Your task to perform on an android device: add a contact in the contacts app Image 0: 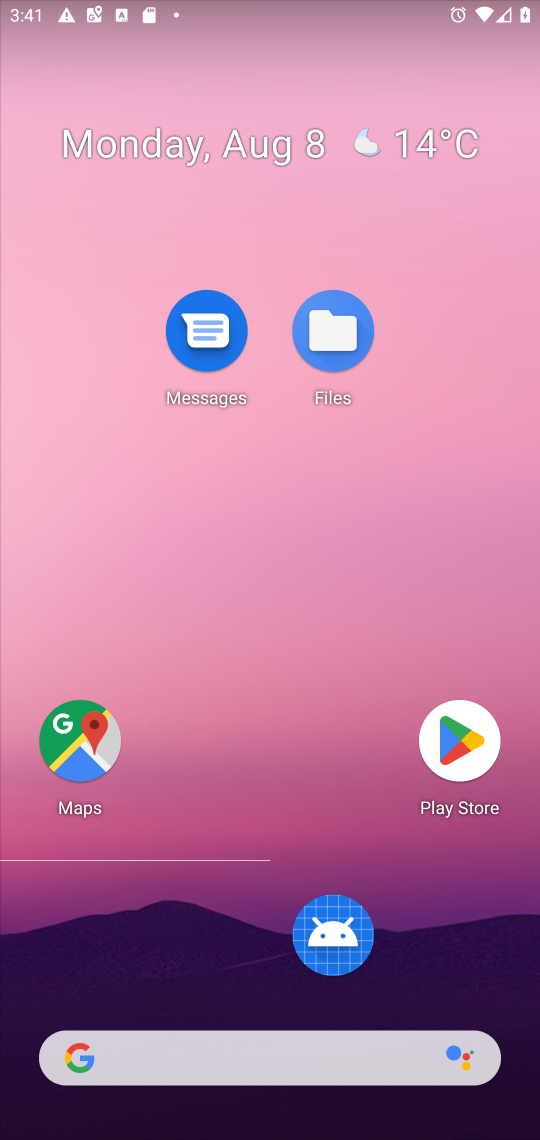
Step 0: drag from (236, 999) to (227, 68)
Your task to perform on an android device: add a contact in the contacts app Image 1: 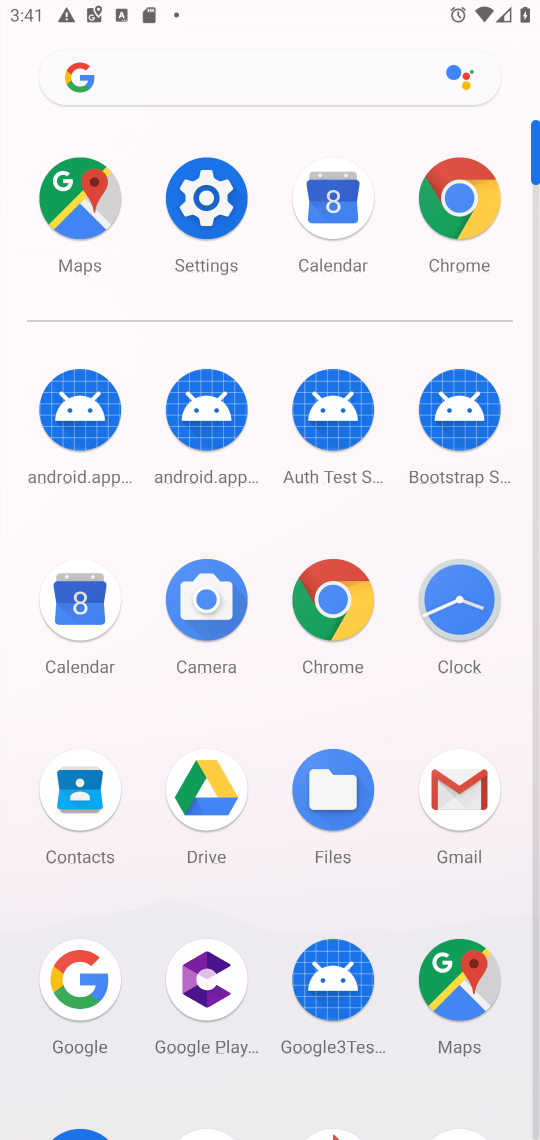
Step 1: click (83, 817)
Your task to perform on an android device: add a contact in the contacts app Image 2: 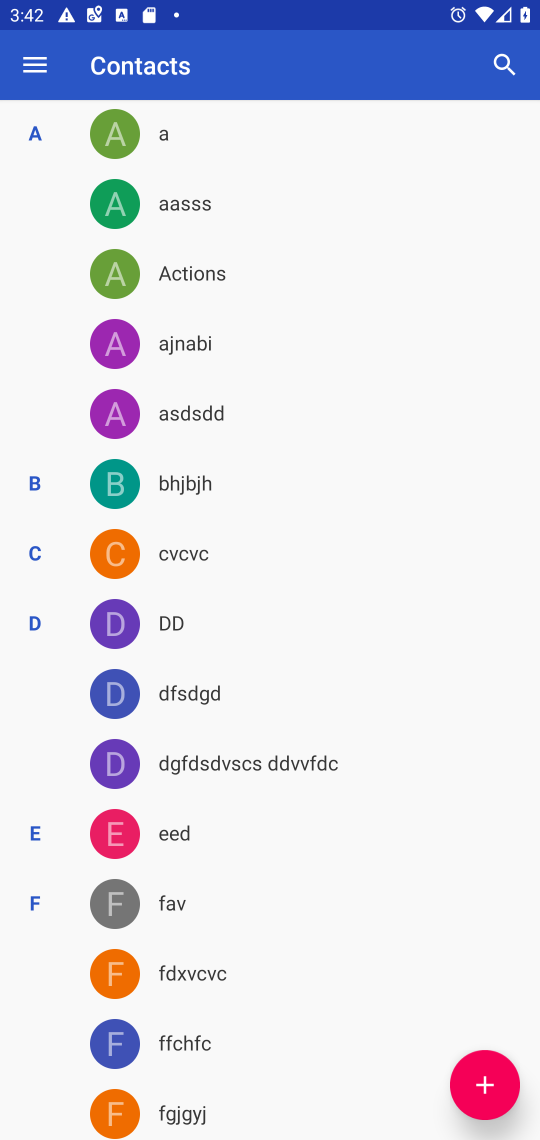
Step 2: click (493, 1086)
Your task to perform on an android device: add a contact in the contacts app Image 3: 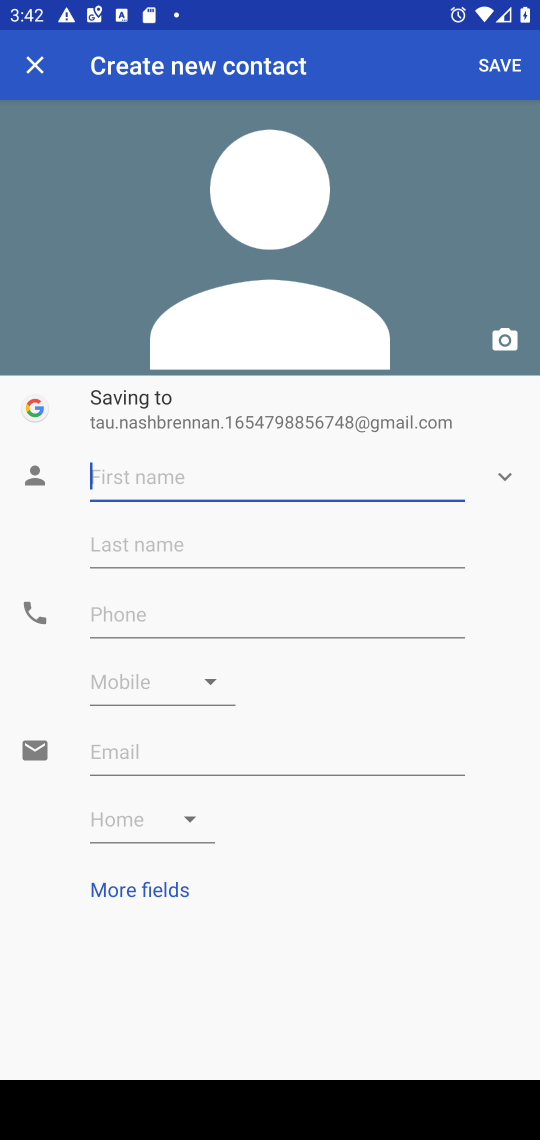
Step 3: type "vfhdh"
Your task to perform on an android device: add a contact in the contacts app Image 4: 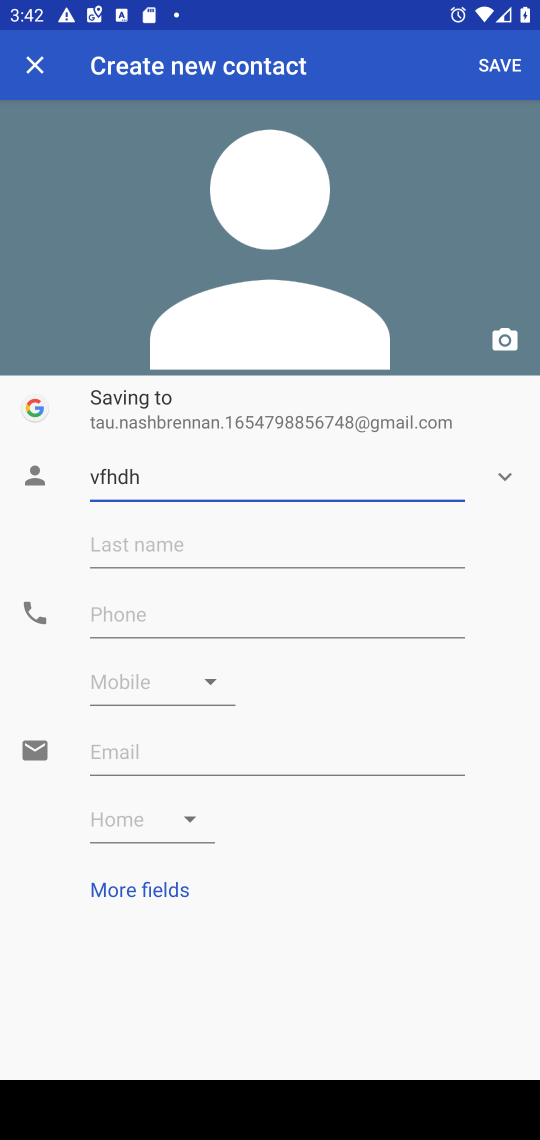
Step 4: click (315, 603)
Your task to perform on an android device: add a contact in the contacts app Image 5: 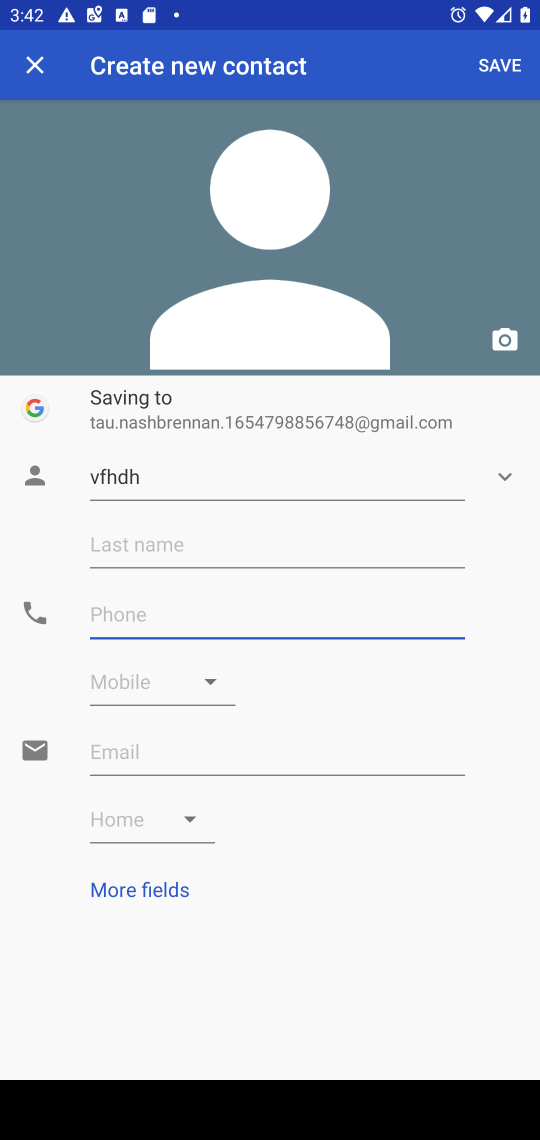
Step 5: type "8907656787"
Your task to perform on an android device: add a contact in the contacts app Image 6: 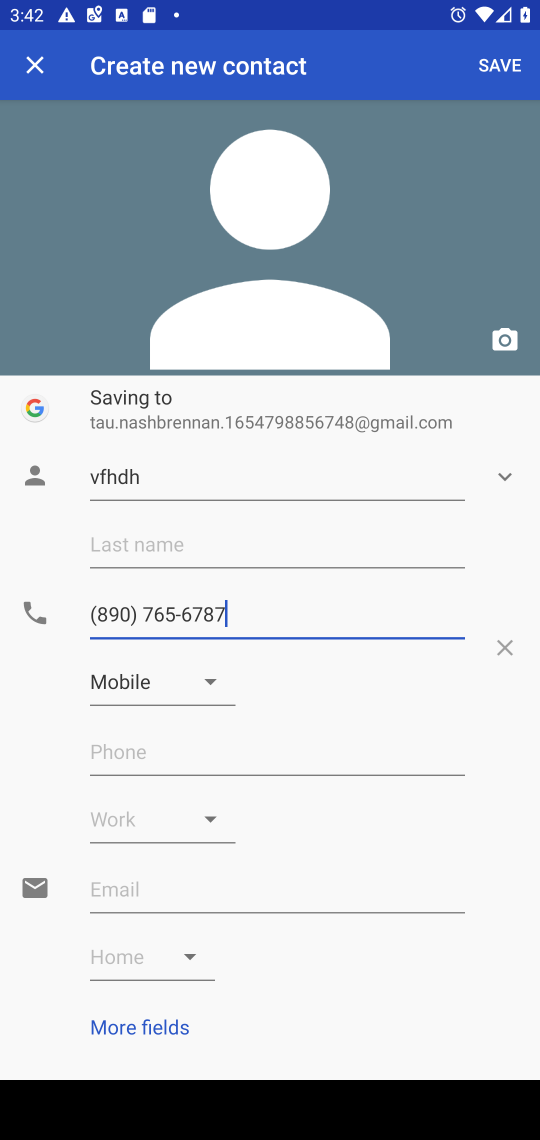
Step 6: click (503, 60)
Your task to perform on an android device: add a contact in the contacts app Image 7: 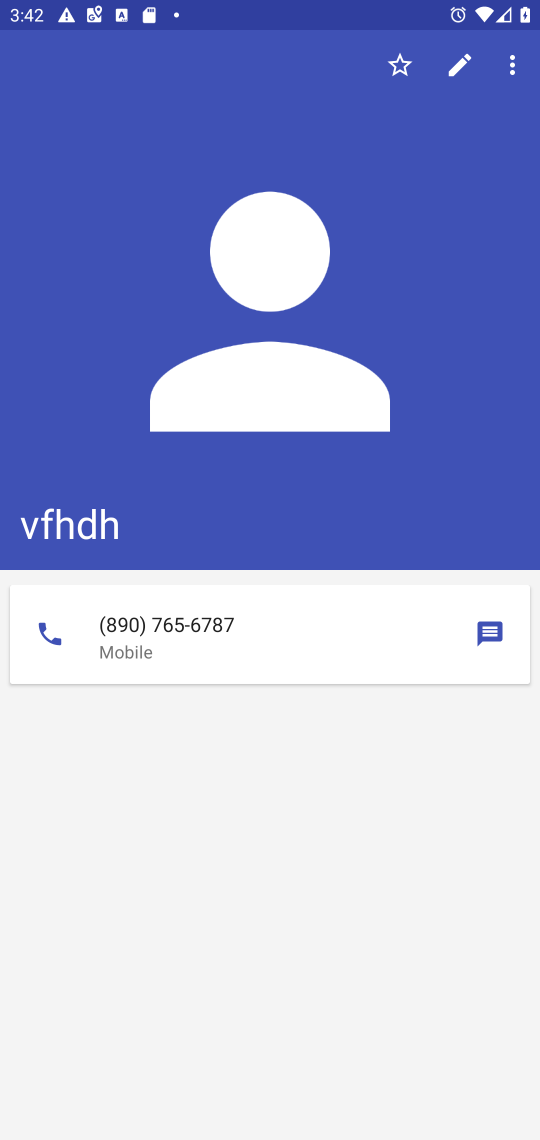
Step 7: task complete